Your task to perform on an android device: check the backup settings in the google photos Image 0: 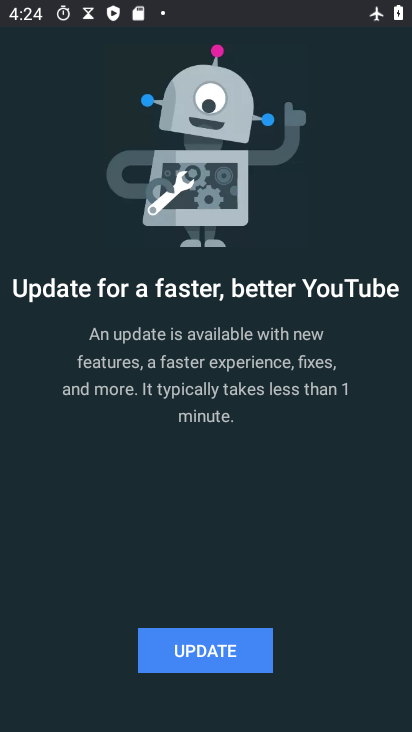
Step 0: press home button
Your task to perform on an android device: check the backup settings in the google photos Image 1: 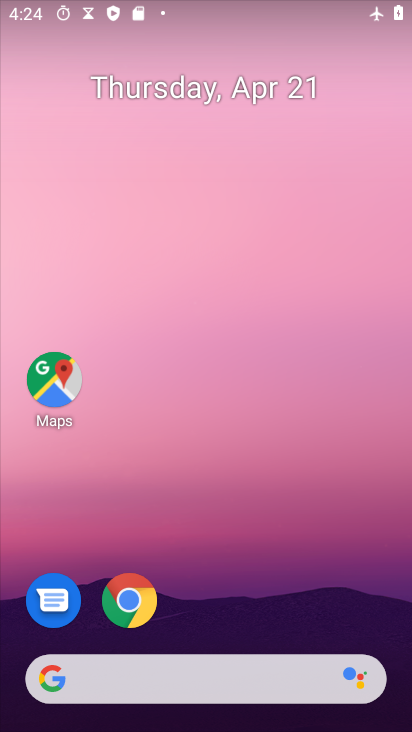
Step 1: drag from (212, 615) to (238, 145)
Your task to perform on an android device: check the backup settings in the google photos Image 2: 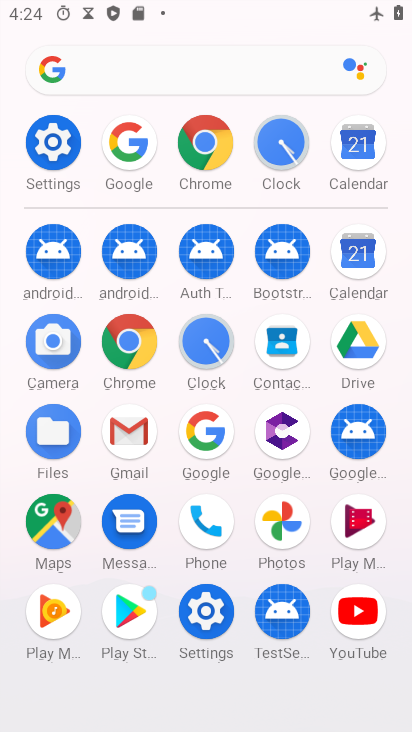
Step 2: click (280, 521)
Your task to perform on an android device: check the backup settings in the google photos Image 3: 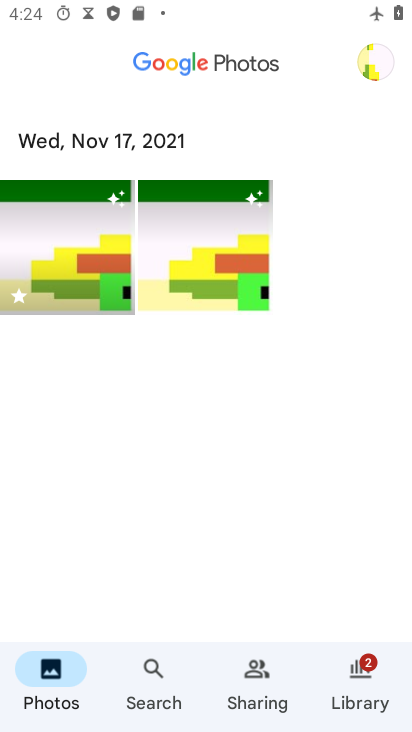
Step 3: click (374, 68)
Your task to perform on an android device: check the backup settings in the google photos Image 4: 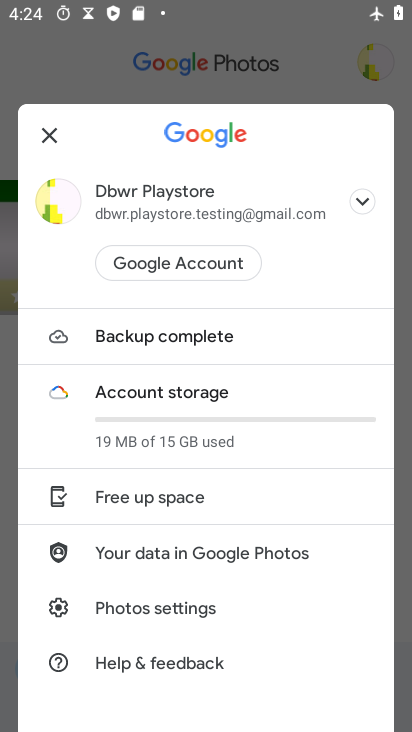
Step 4: click (149, 613)
Your task to perform on an android device: check the backup settings in the google photos Image 5: 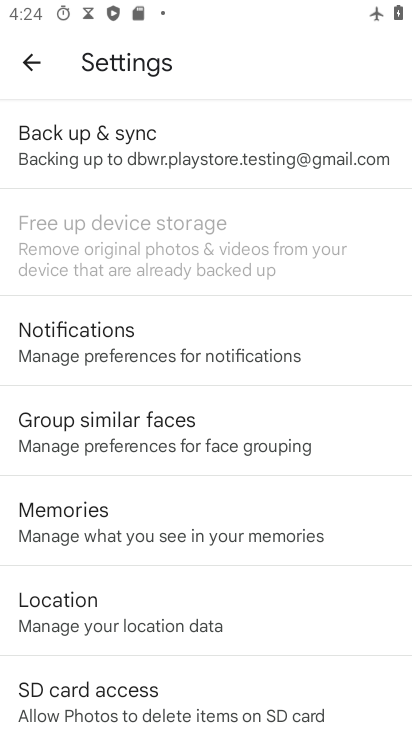
Step 5: click (159, 139)
Your task to perform on an android device: check the backup settings in the google photos Image 6: 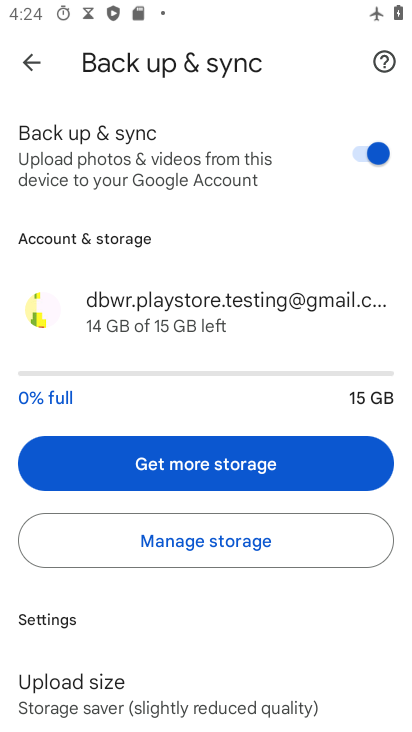
Step 6: task complete